Your task to perform on an android device: turn vacation reply on in the gmail app Image 0: 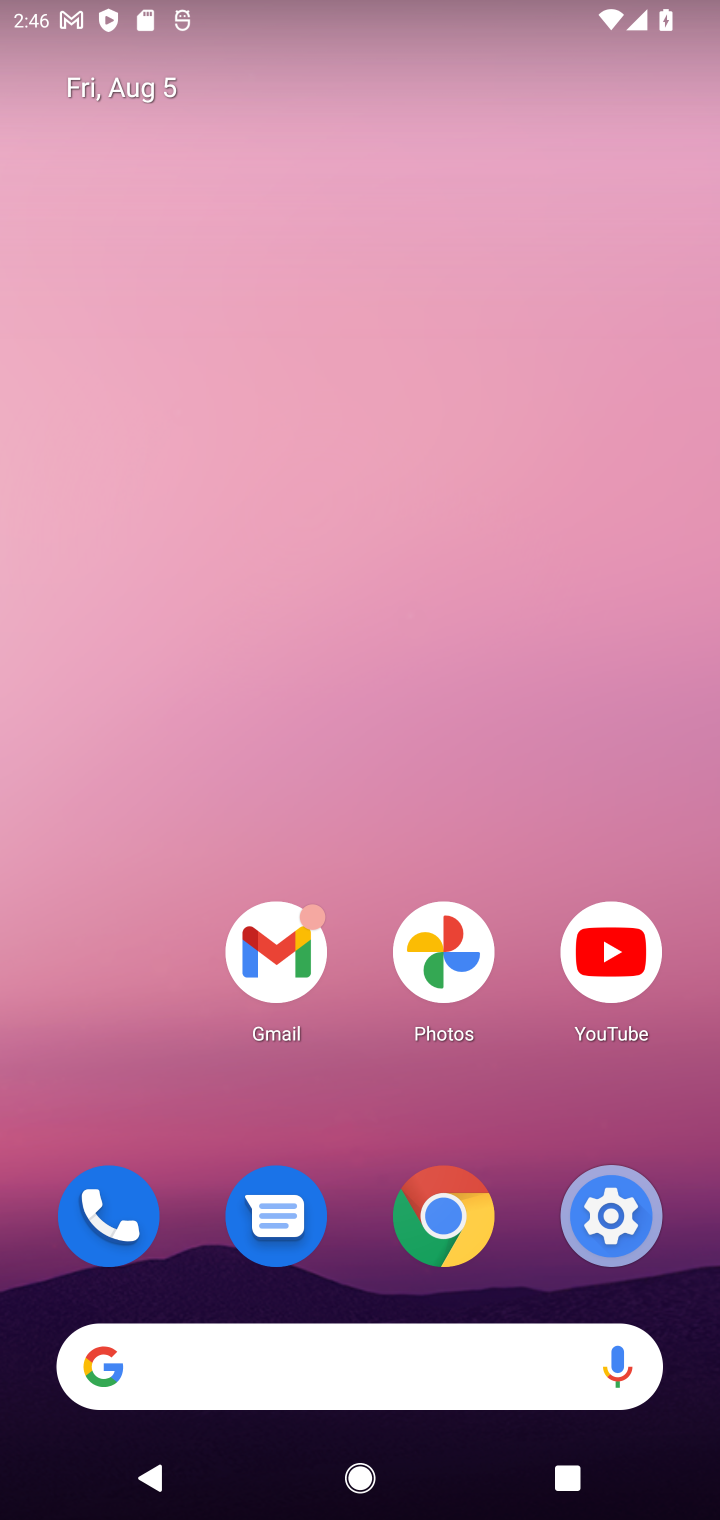
Step 0: click (329, 938)
Your task to perform on an android device: turn vacation reply on in the gmail app Image 1: 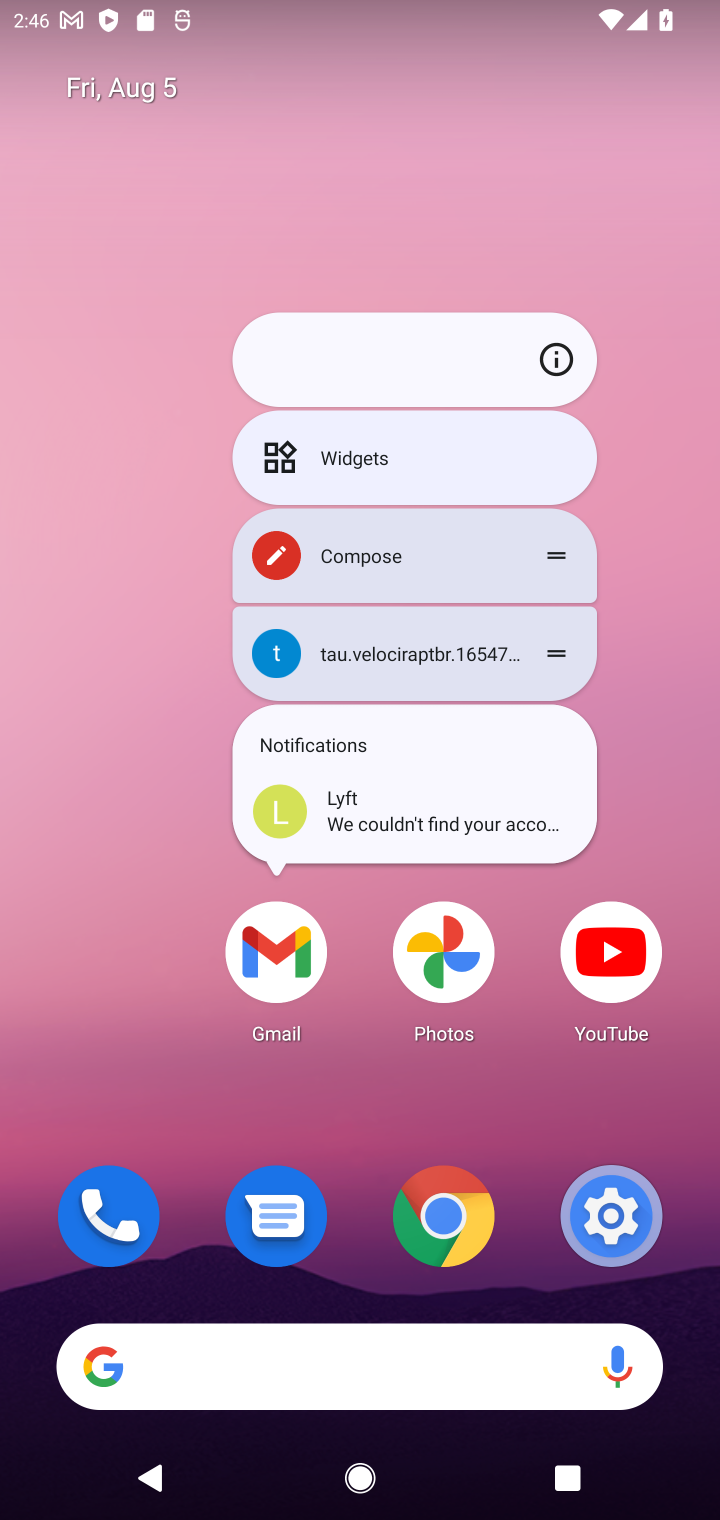
Step 1: click (316, 962)
Your task to perform on an android device: turn vacation reply on in the gmail app Image 2: 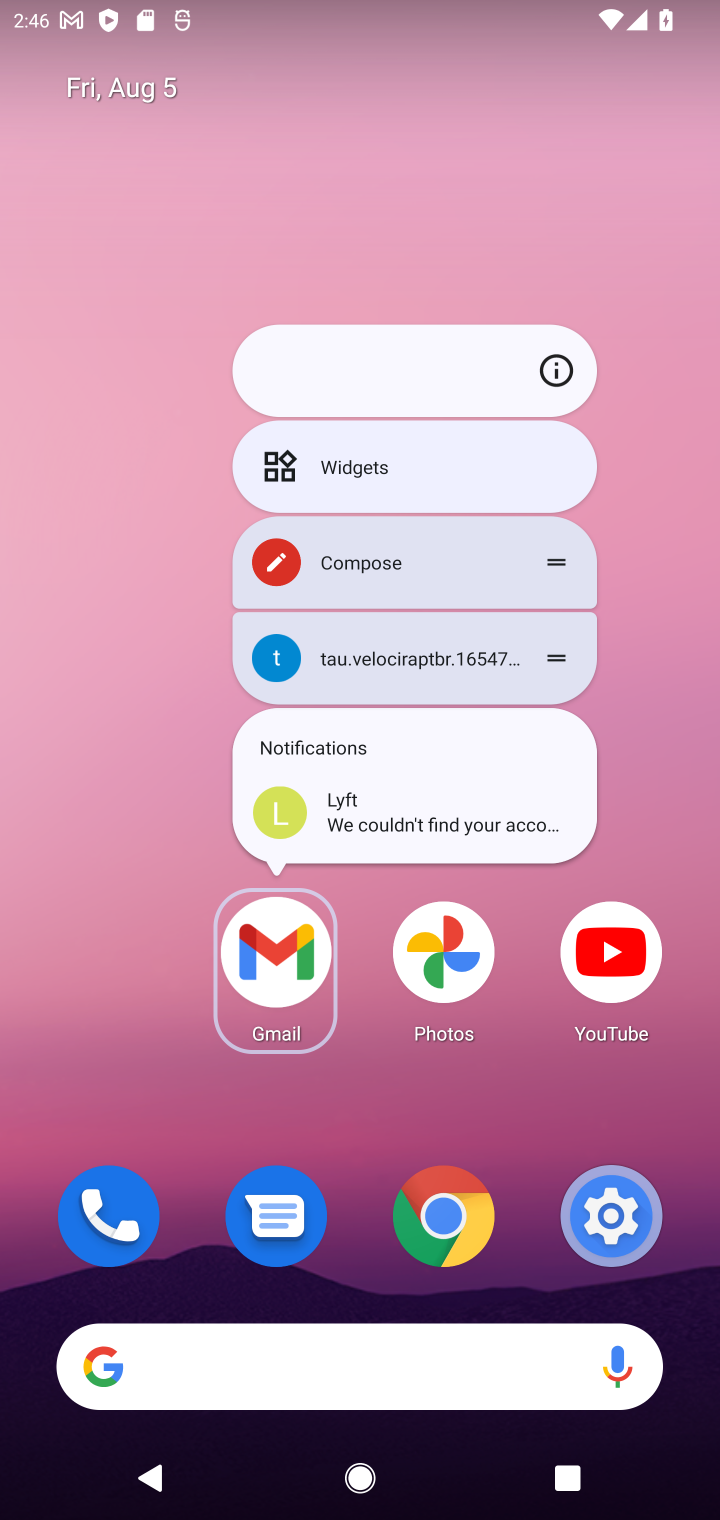
Step 2: click (316, 962)
Your task to perform on an android device: turn vacation reply on in the gmail app Image 3: 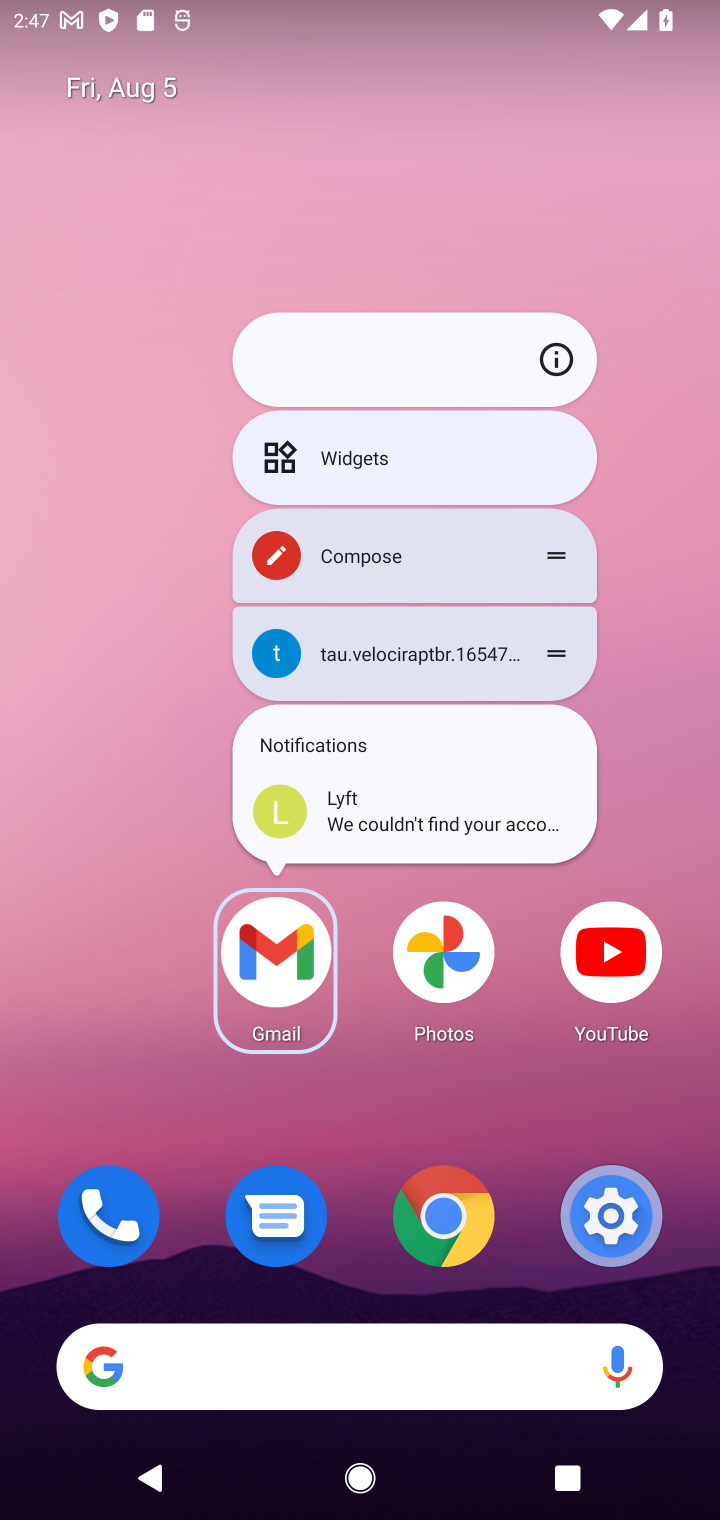
Step 3: click (316, 962)
Your task to perform on an android device: turn vacation reply on in the gmail app Image 4: 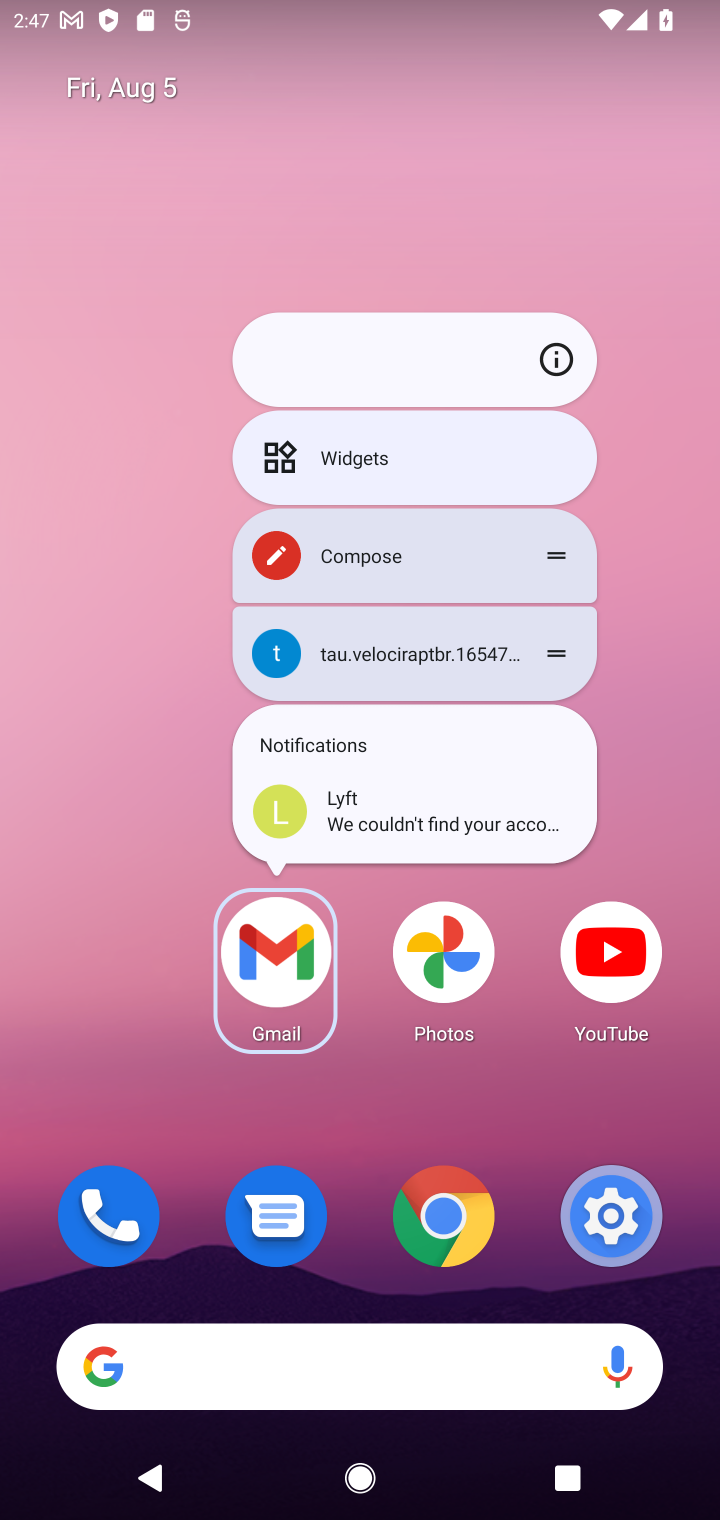
Step 4: click (242, 981)
Your task to perform on an android device: turn vacation reply on in the gmail app Image 5: 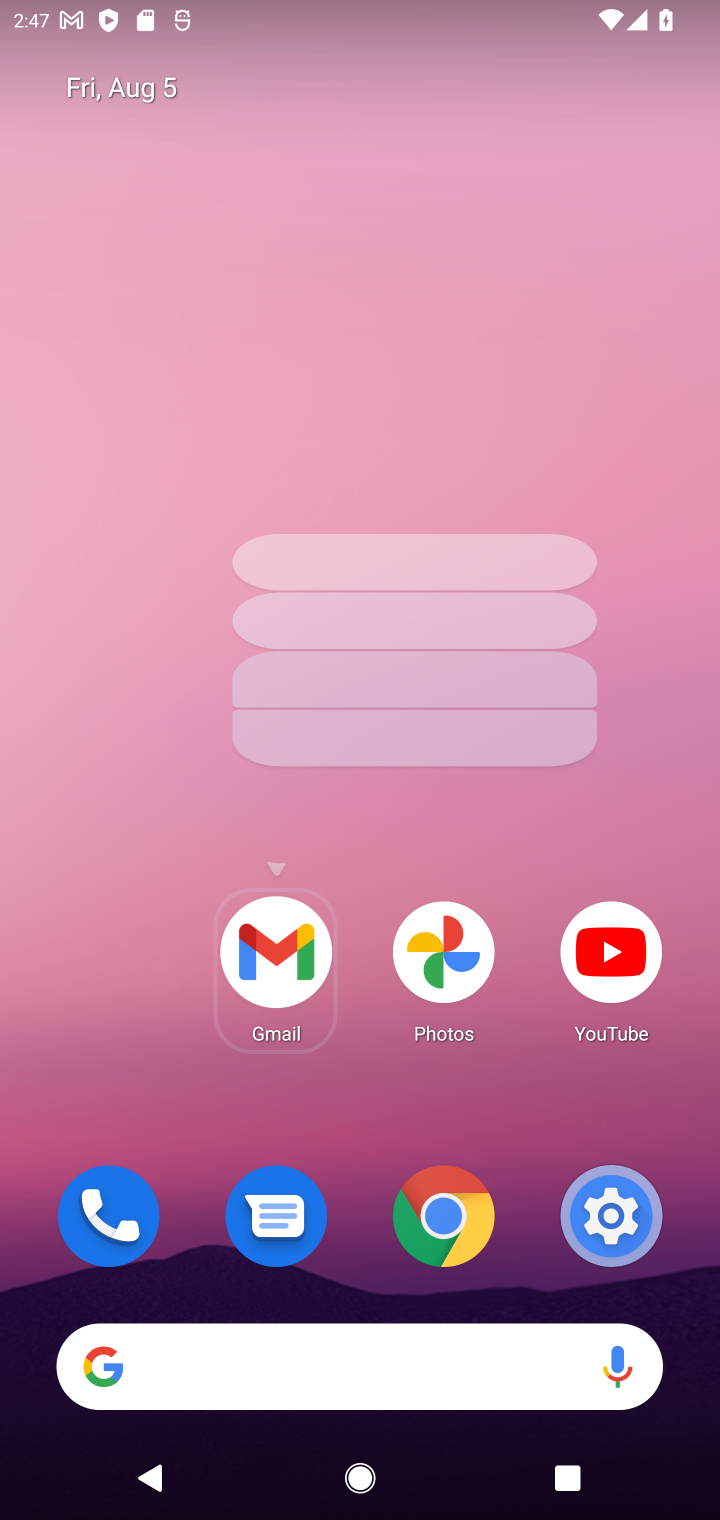
Step 5: click (242, 981)
Your task to perform on an android device: turn vacation reply on in the gmail app Image 6: 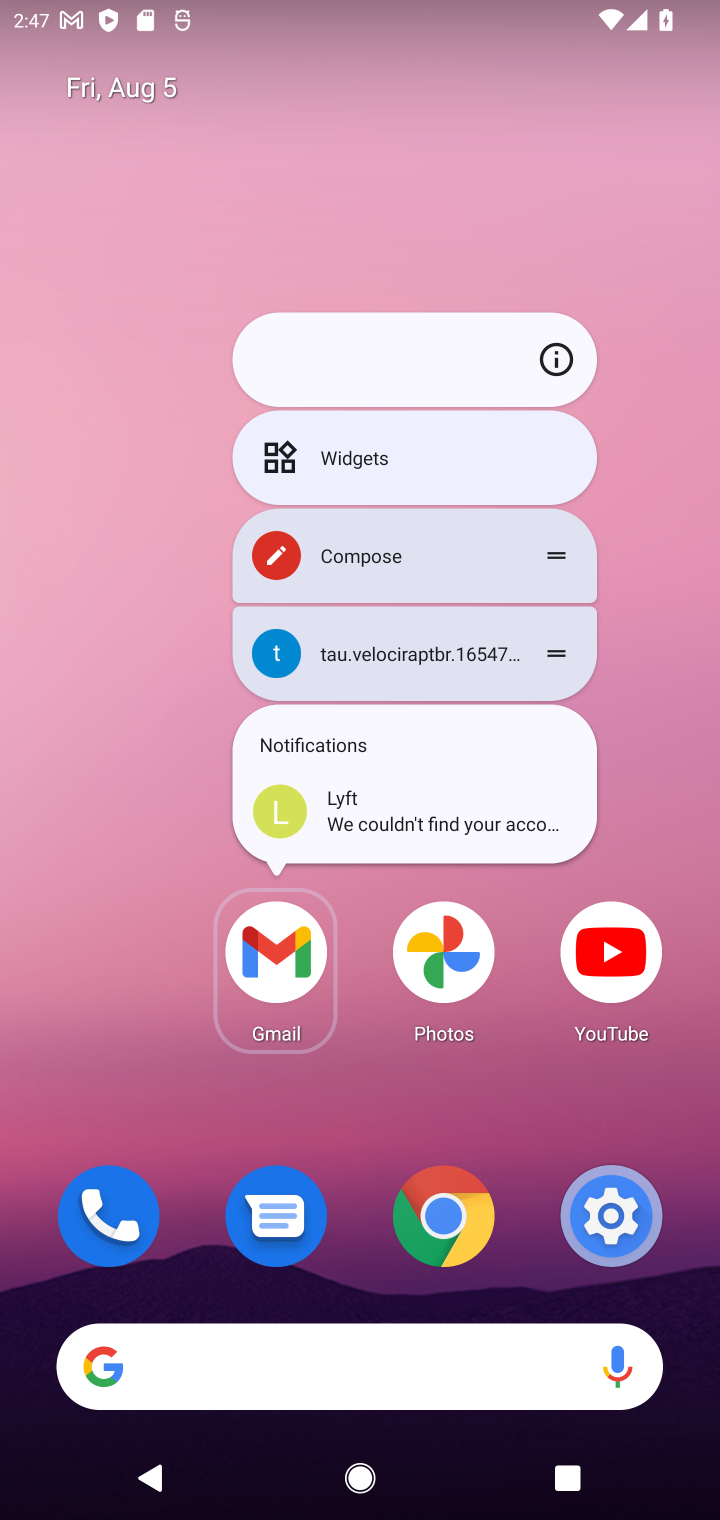
Step 6: click (89, 954)
Your task to perform on an android device: turn vacation reply on in the gmail app Image 7: 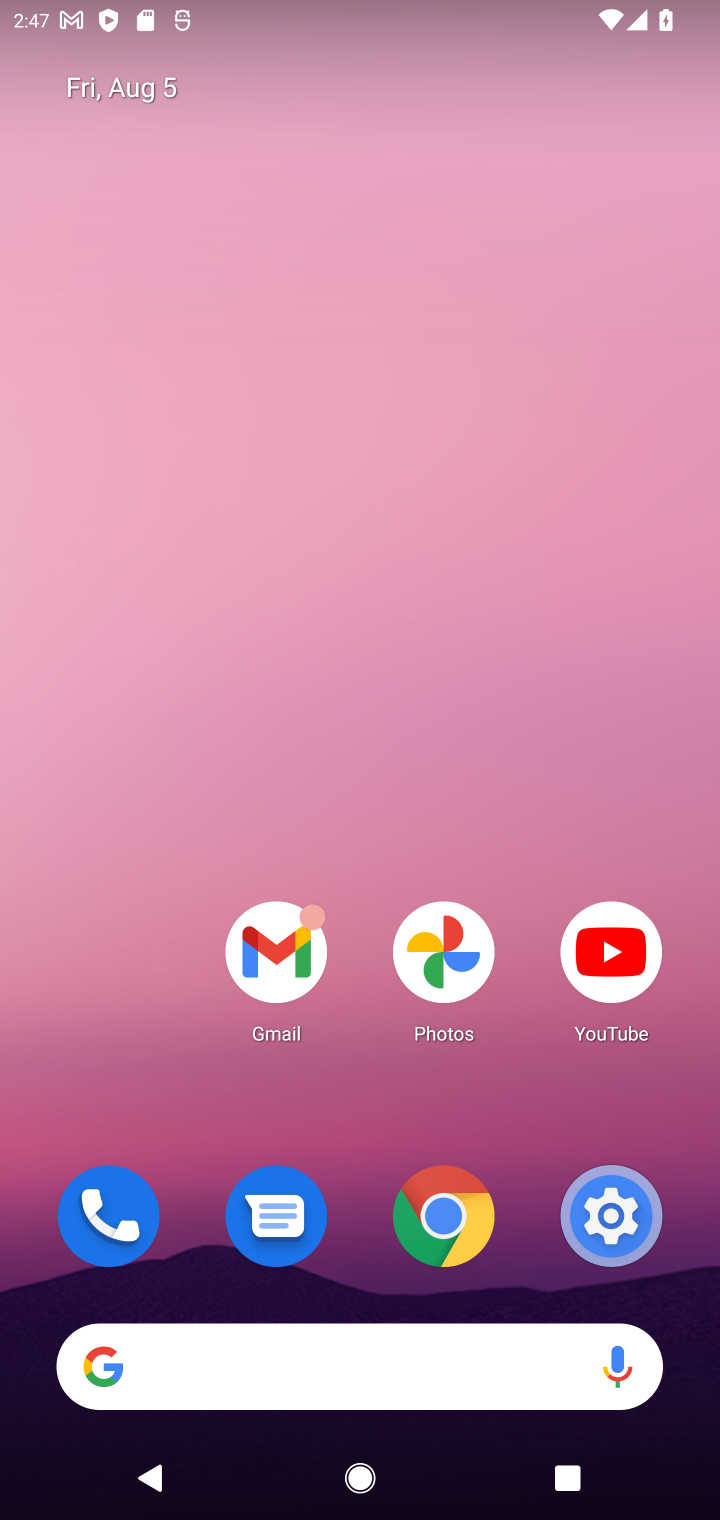
Step 7: click (302, 951)
Your task to perform on an android device: turn vacation reply on in the gmail app Image 8: 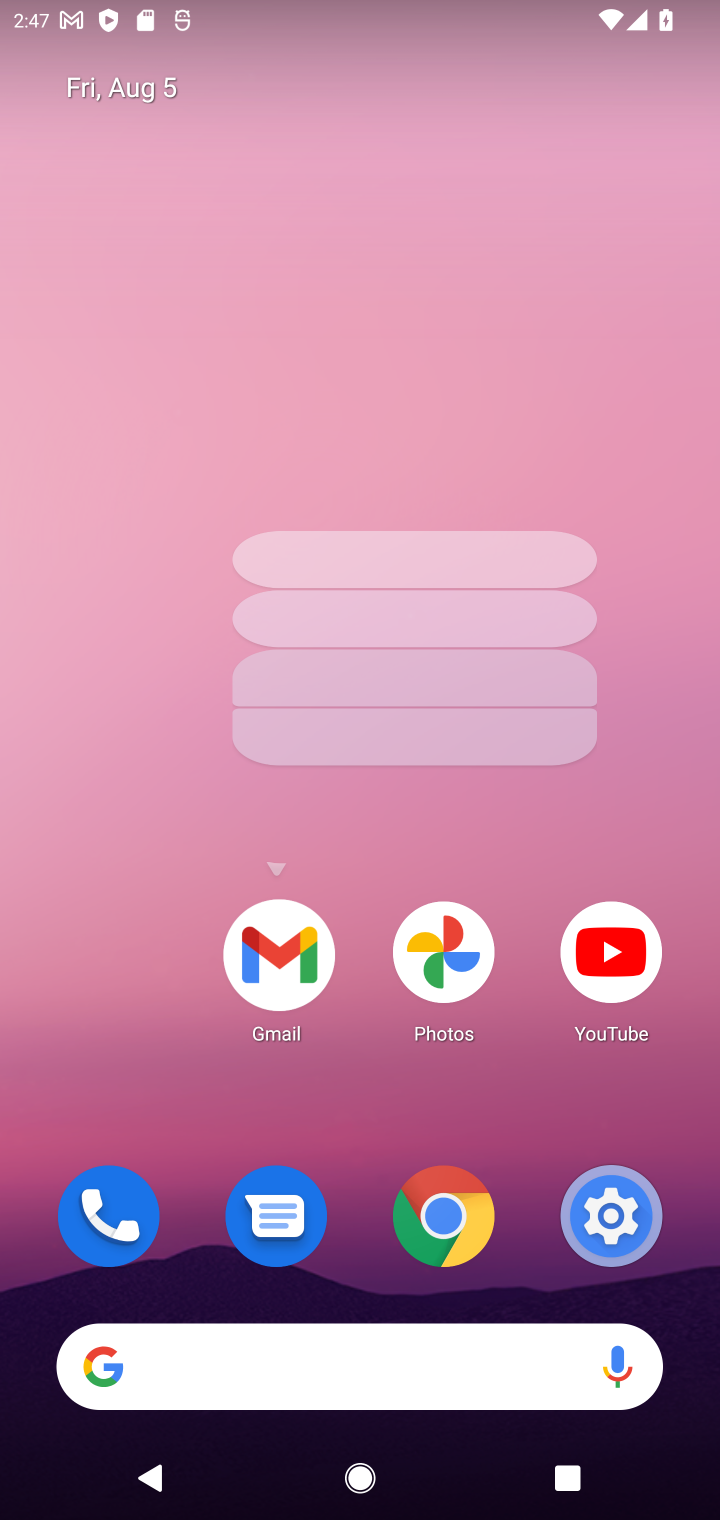
Step 8: click (302, 951)
Your task to perform on an android device: turn vacation reply on in the gmail app Image 9: 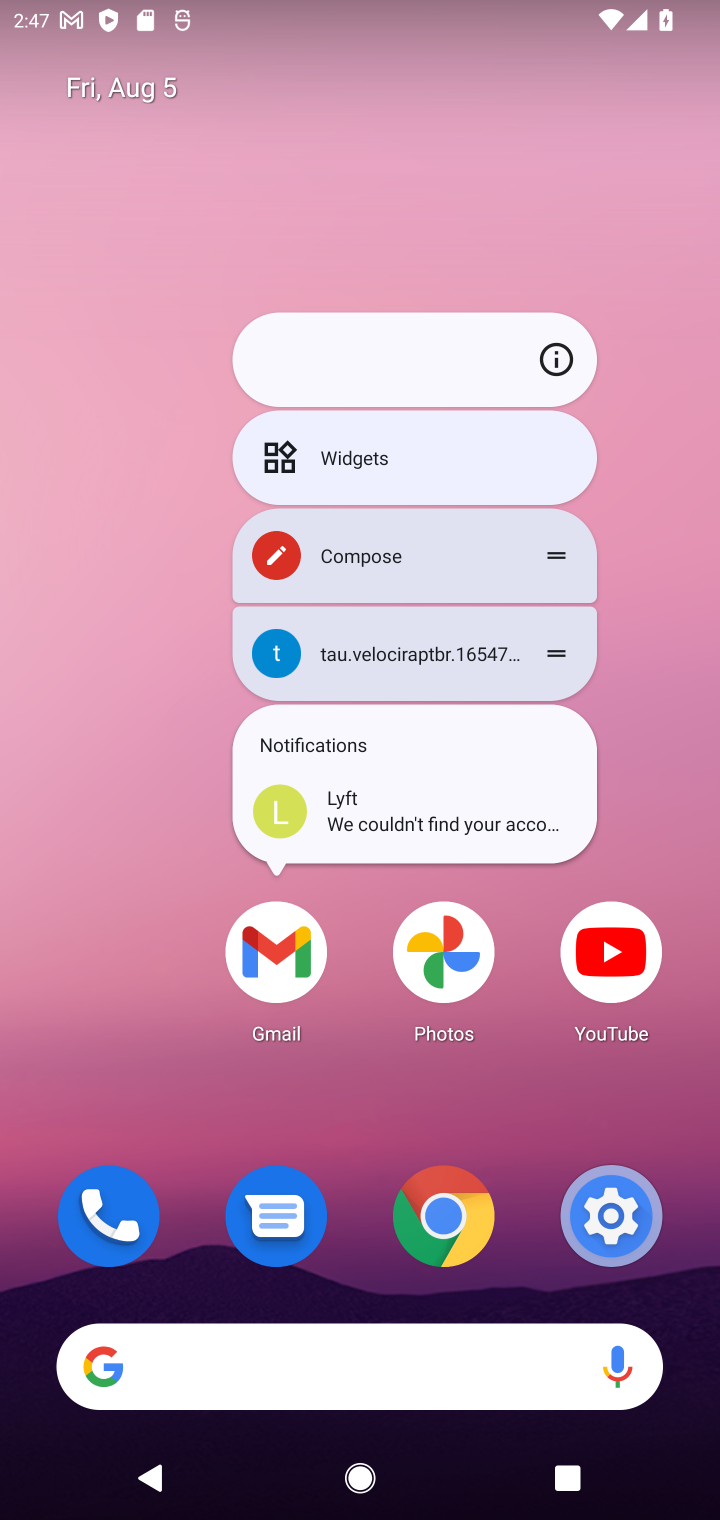
Step 9: click (302, 951)
Your task to perform on an android device: turn vacation reply on in the gmail app Image 10: 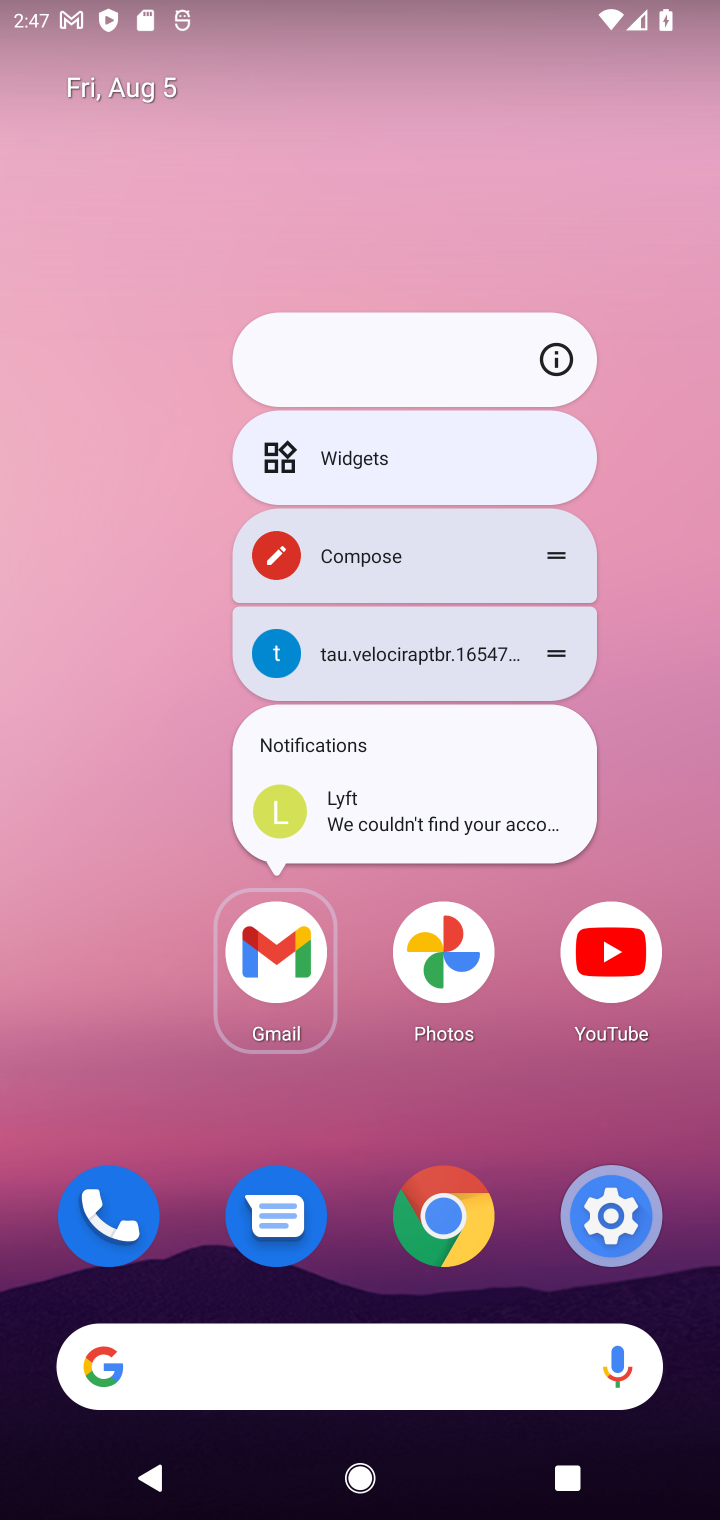
Step 10: click (302, 951)
Your task to perform on an android device: turn vacation reply on in the gmail app Image 11: 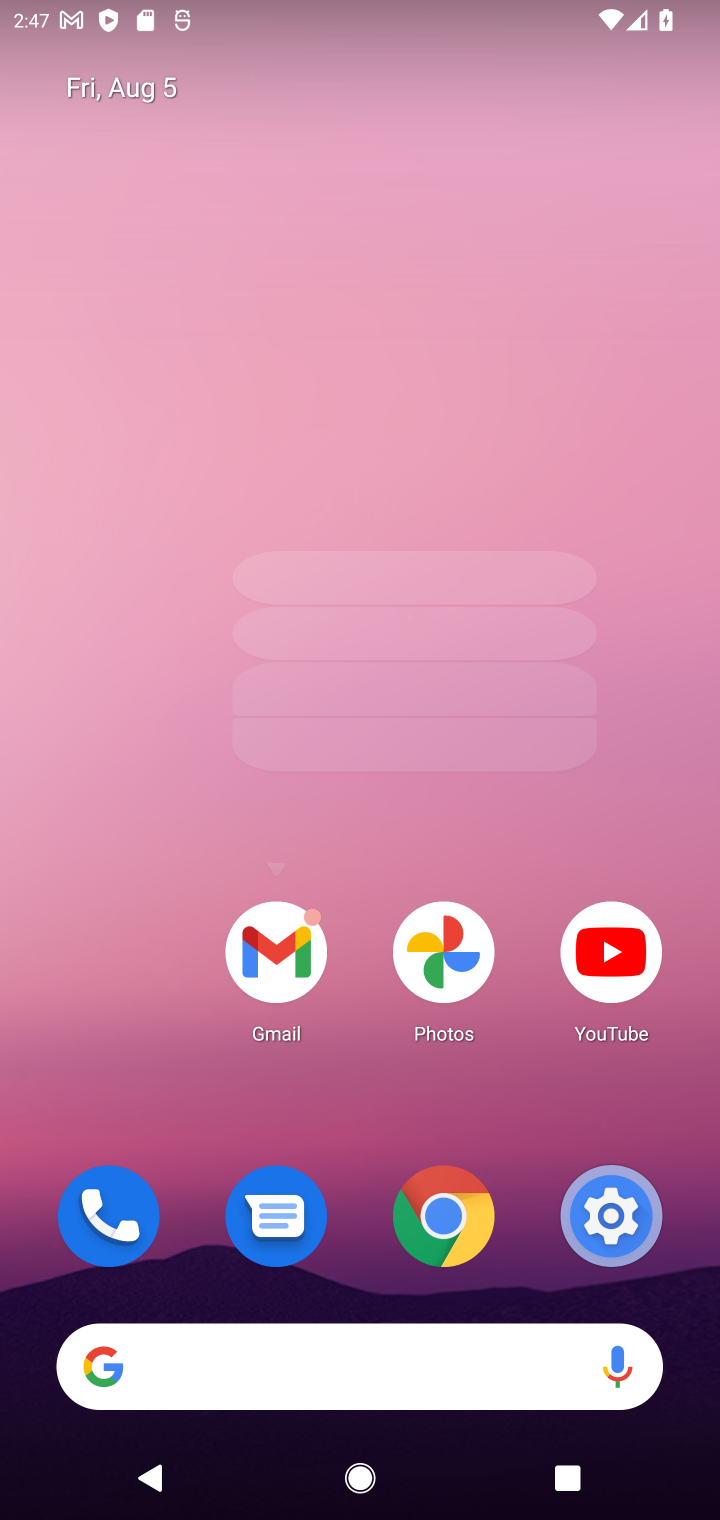
Step 11: click (309, 980)
Your task to perform on an android device: turn vacation reply on in the gmail app Image 12: 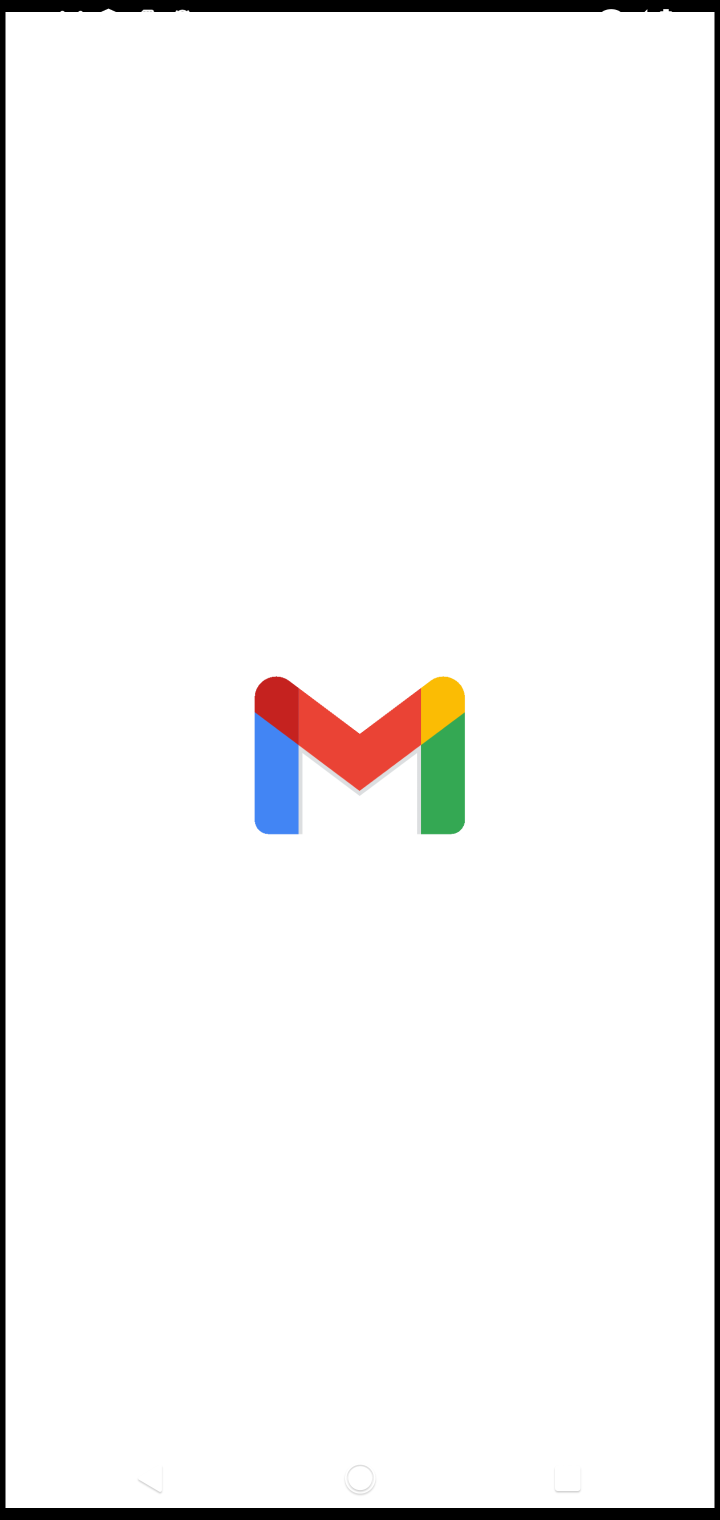
Step 12: click (309, 980)
Your task to perform on an android device: turn vacation reply on in the gmail app Image 13: 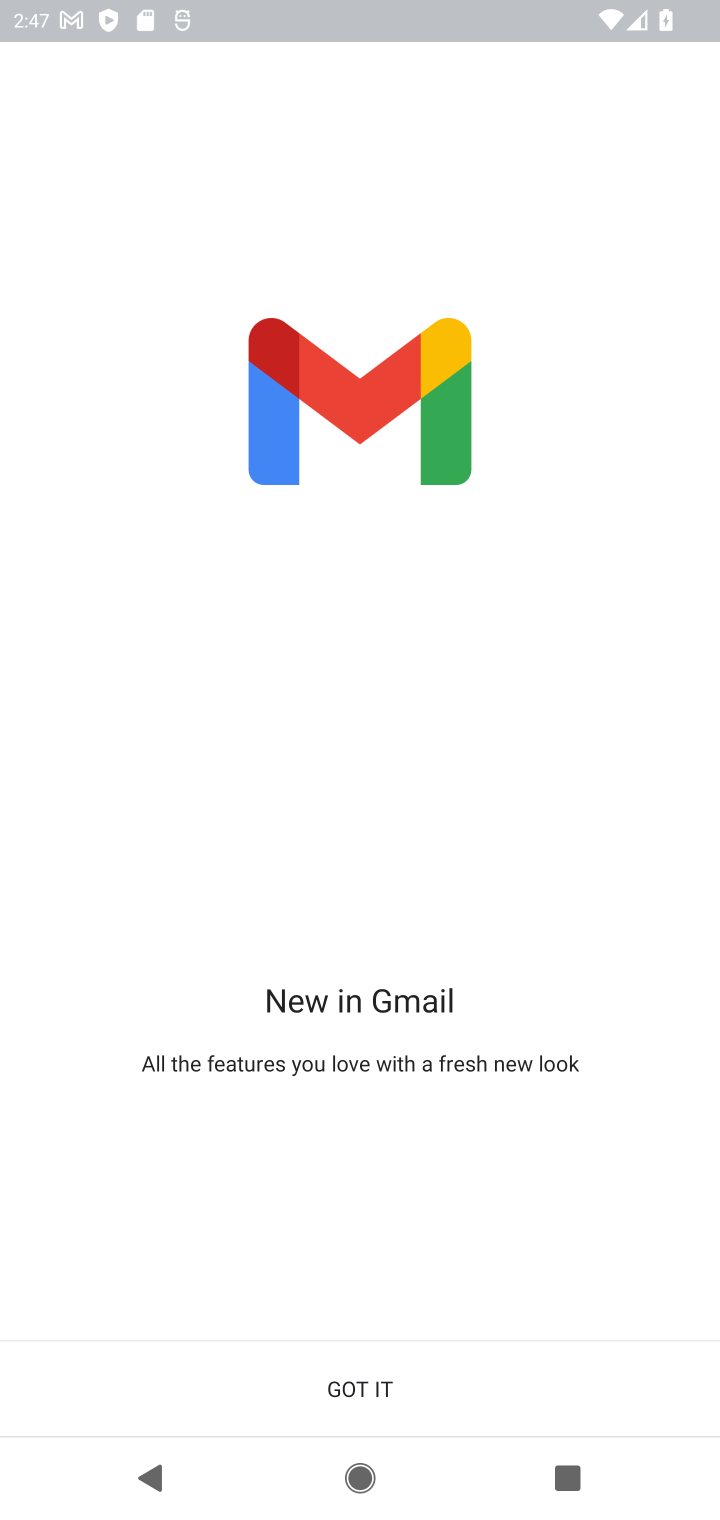
Step 13: click (421, 1406)
Your task to perform on an android device: turn vacation reply on in the gmail app Image 14: 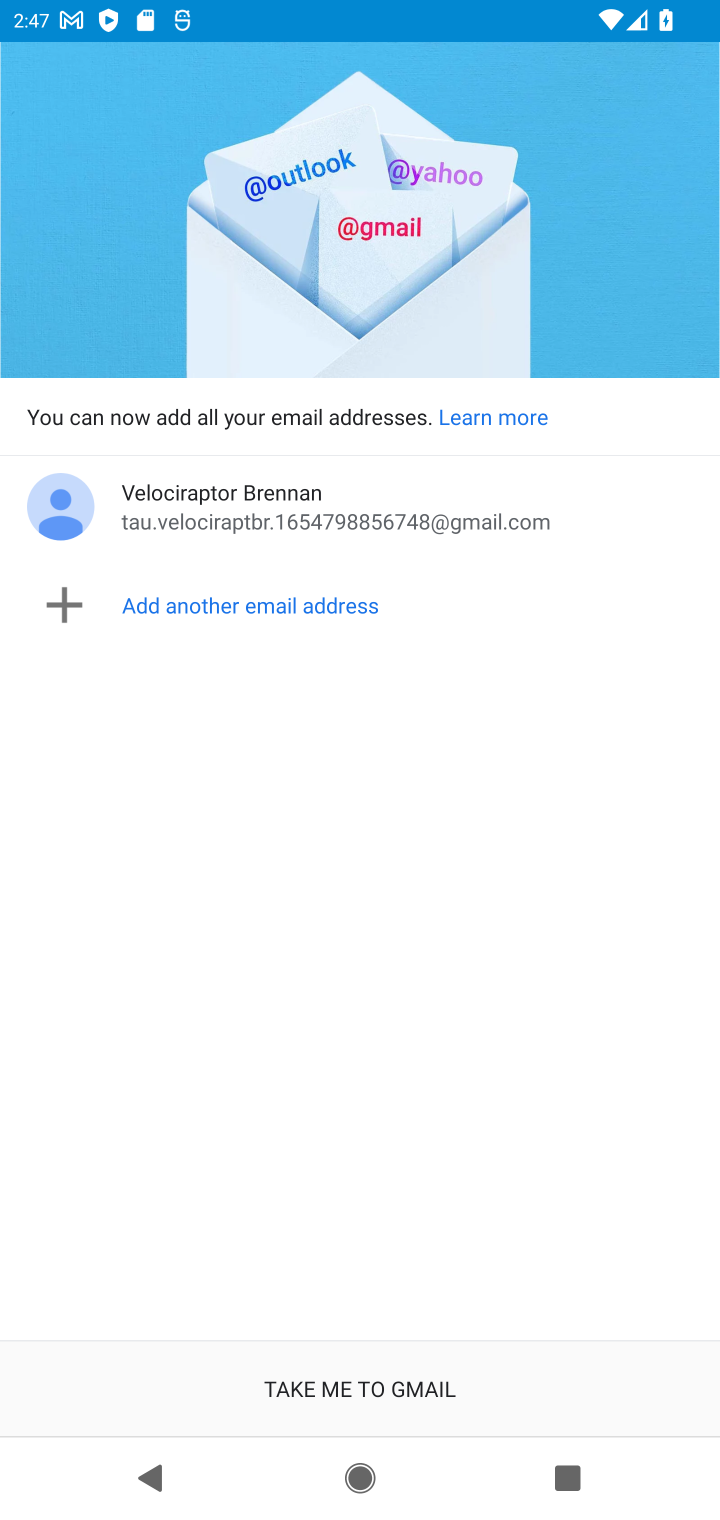
Step 14: click (421, 1397)
Your task to perform on an android device: turn vacation reply on in the gmail app Image 15: 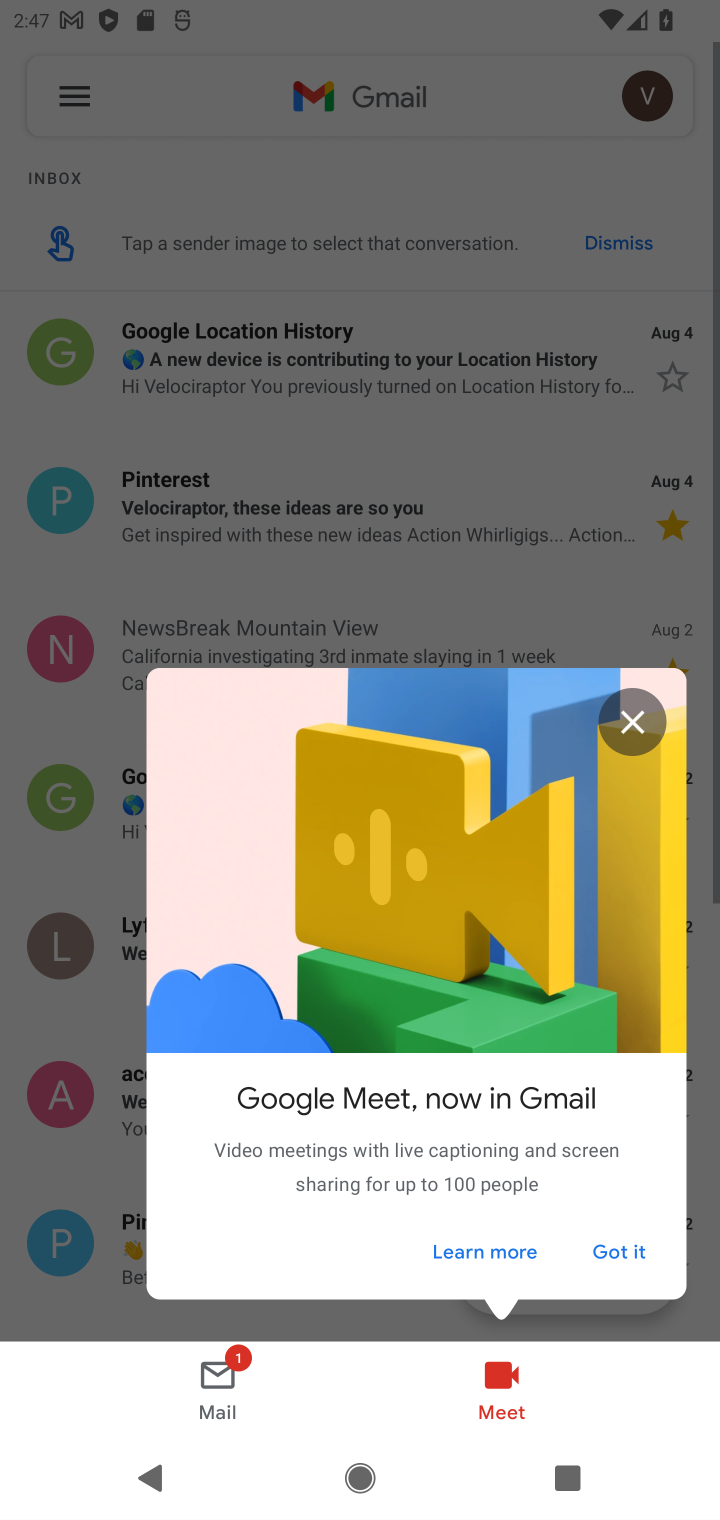
Step 15: click (63, 102)
Your task to perform on an android device: turn vacation reply on in the gmail app Image 16: 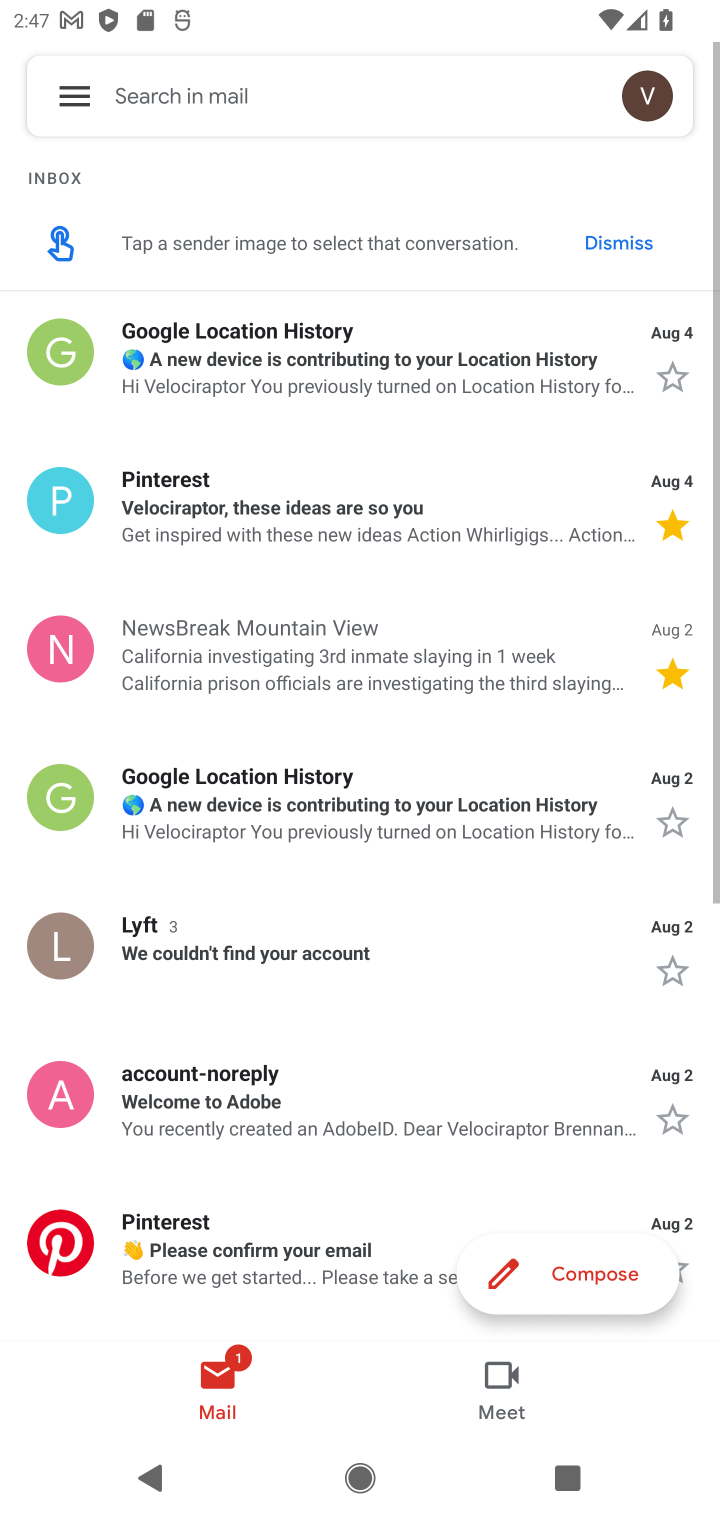
Step 16: click (87, 87)
Your task to perform on an android device: turn vacation reply on in the gmail app Image 17: 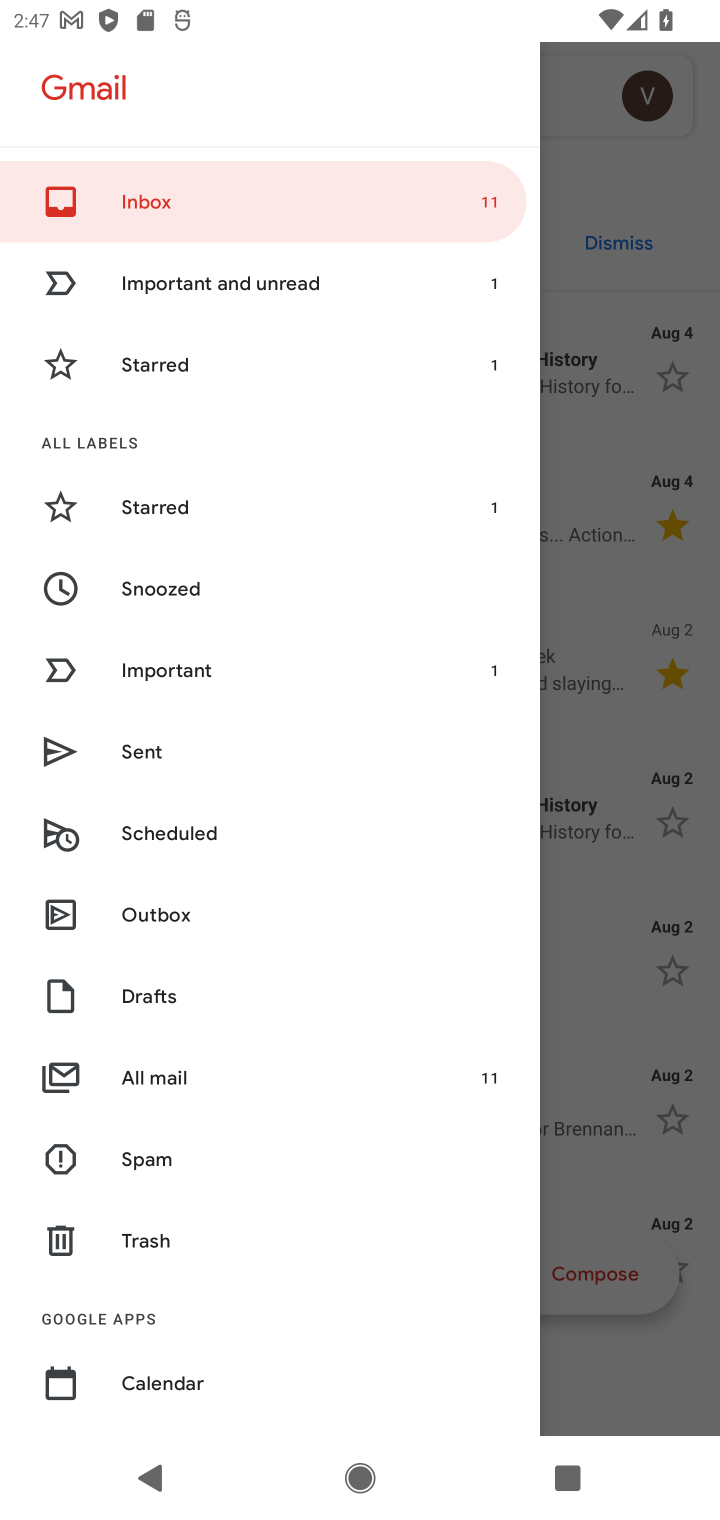
Step 17: drag from (161, 1273) to (363, 288)
Your task to perform on an android device: turn vacation reply on in the gmail app Image 18: 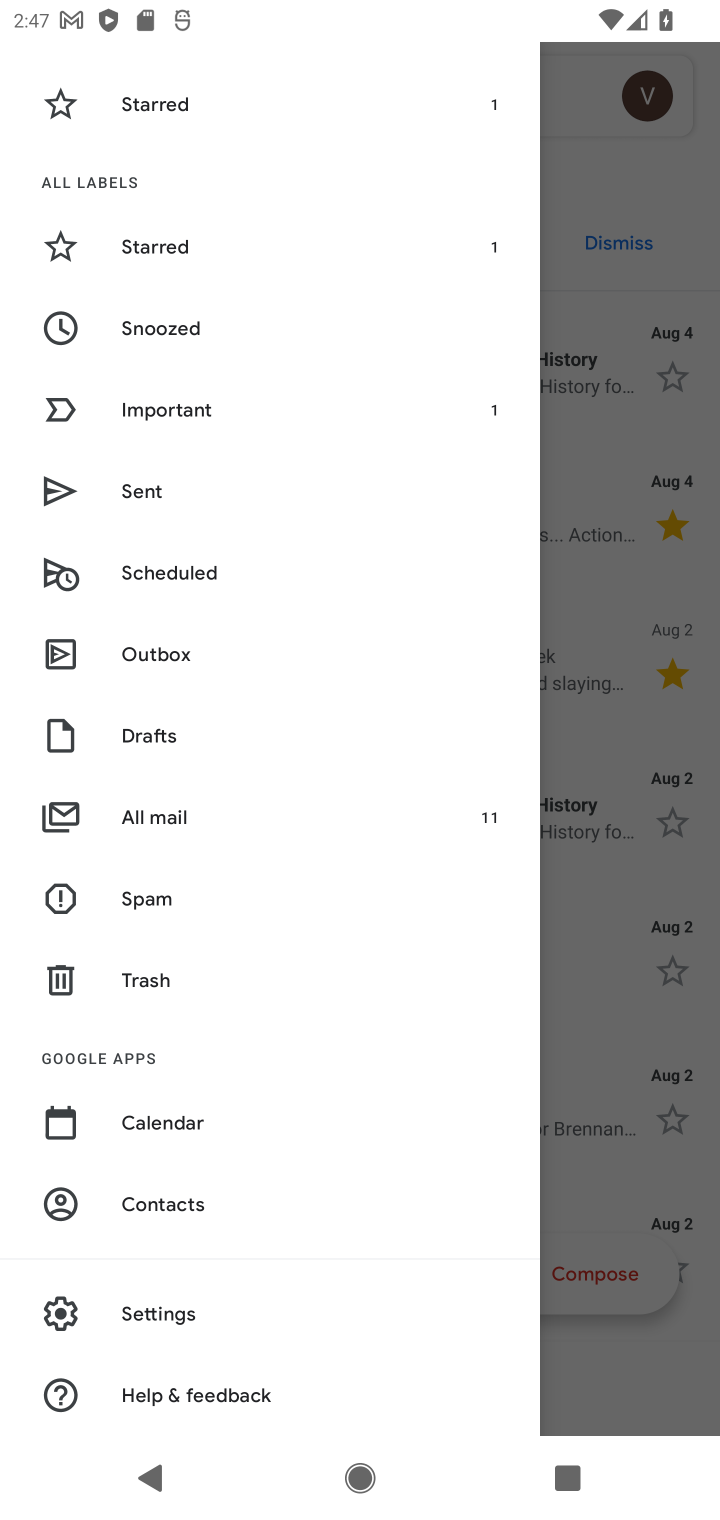
Step 18: click (175, 1319)
Your task to perform on an android device: turn vacation reply on in the gmail app Image 19: 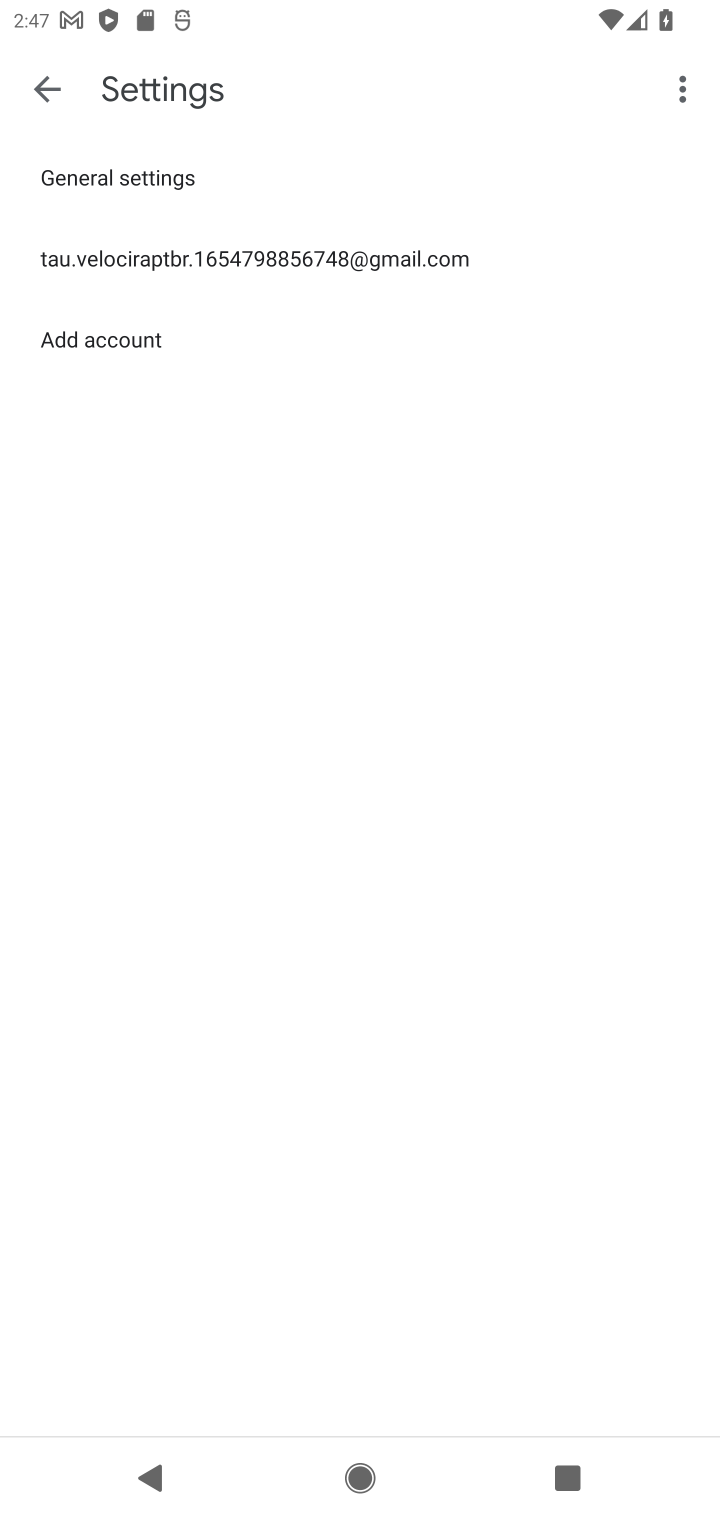
Step 19: click (352, 261)
Your task to perform on an android device: turn vacation reply on in the gmail app Image 20: 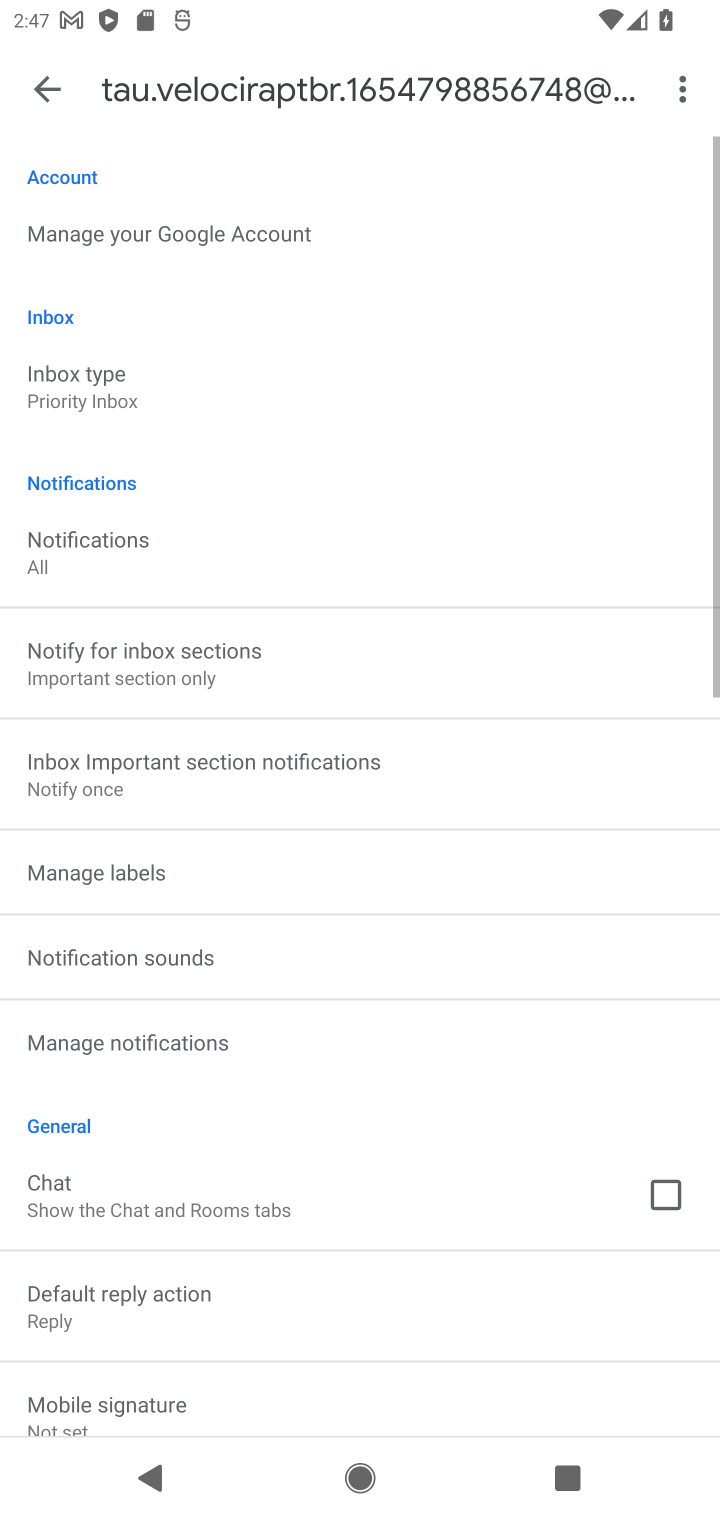
Step 20: drag from (347, 1190) to (461, 115)
Your task to perform on an android device: turn vacation reply on in the gmail app Image 21: 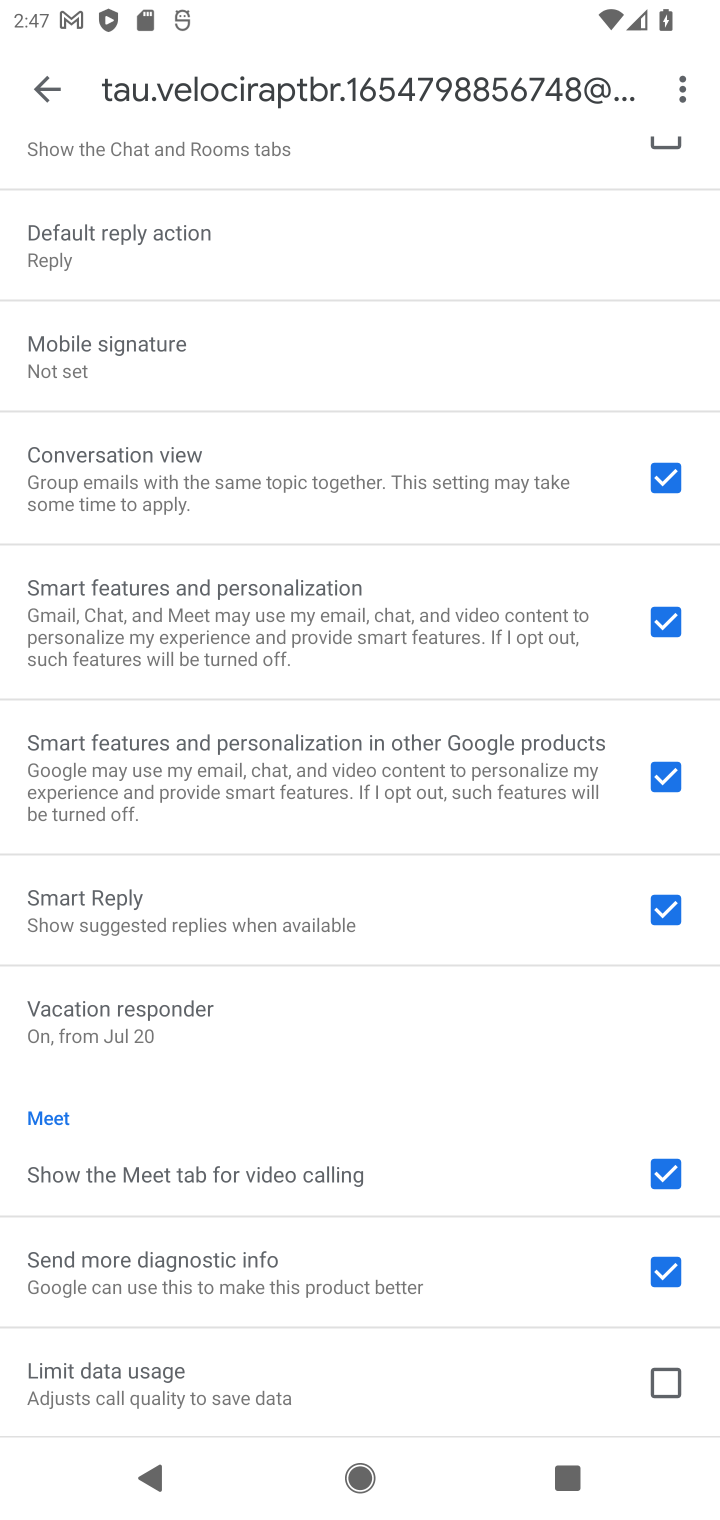
Step 21: click (363, 1022)
Your task to perform on an android device: turn vacation reply on in the gmail app Image 22: 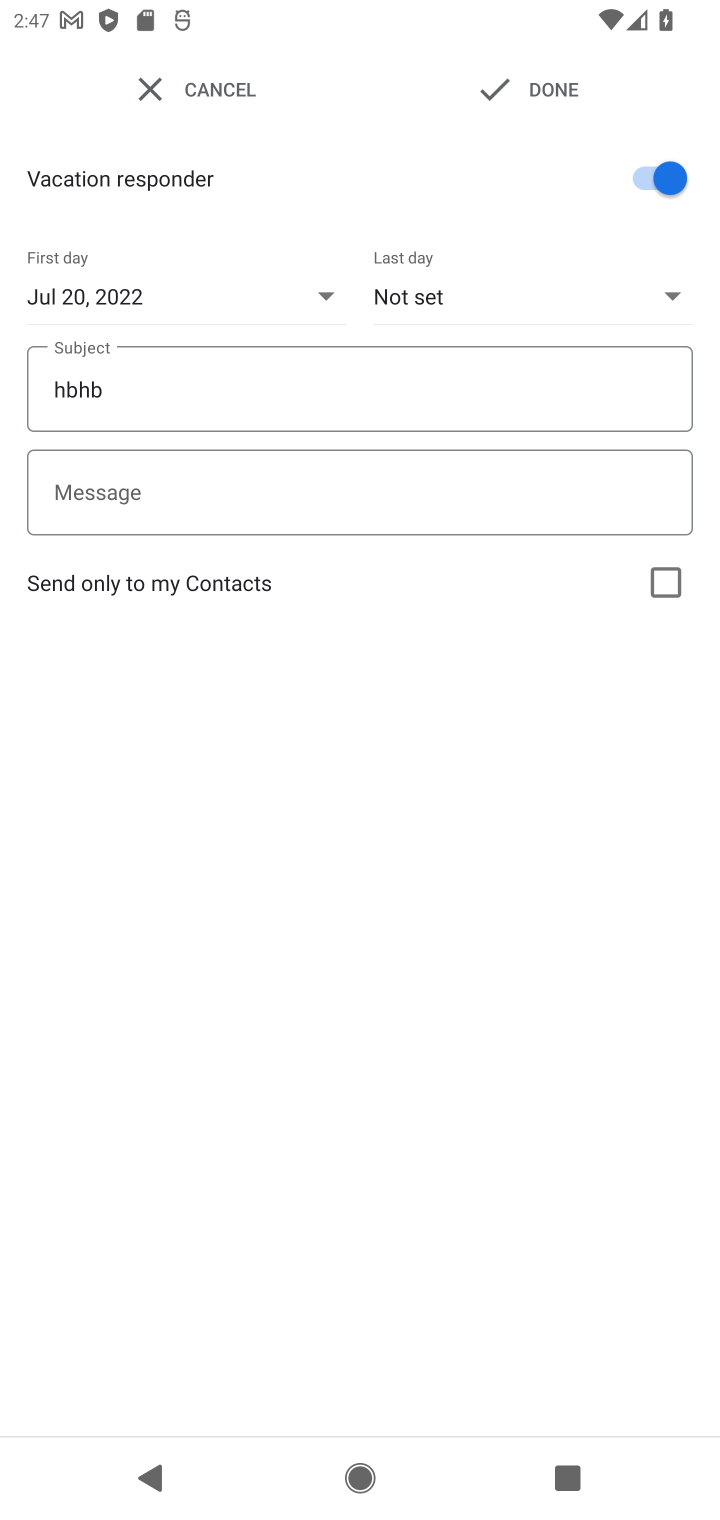
Step 22: click (567, 79)
Your task to perform on an android device: turn vacation reply on in the gmail app Image 23: 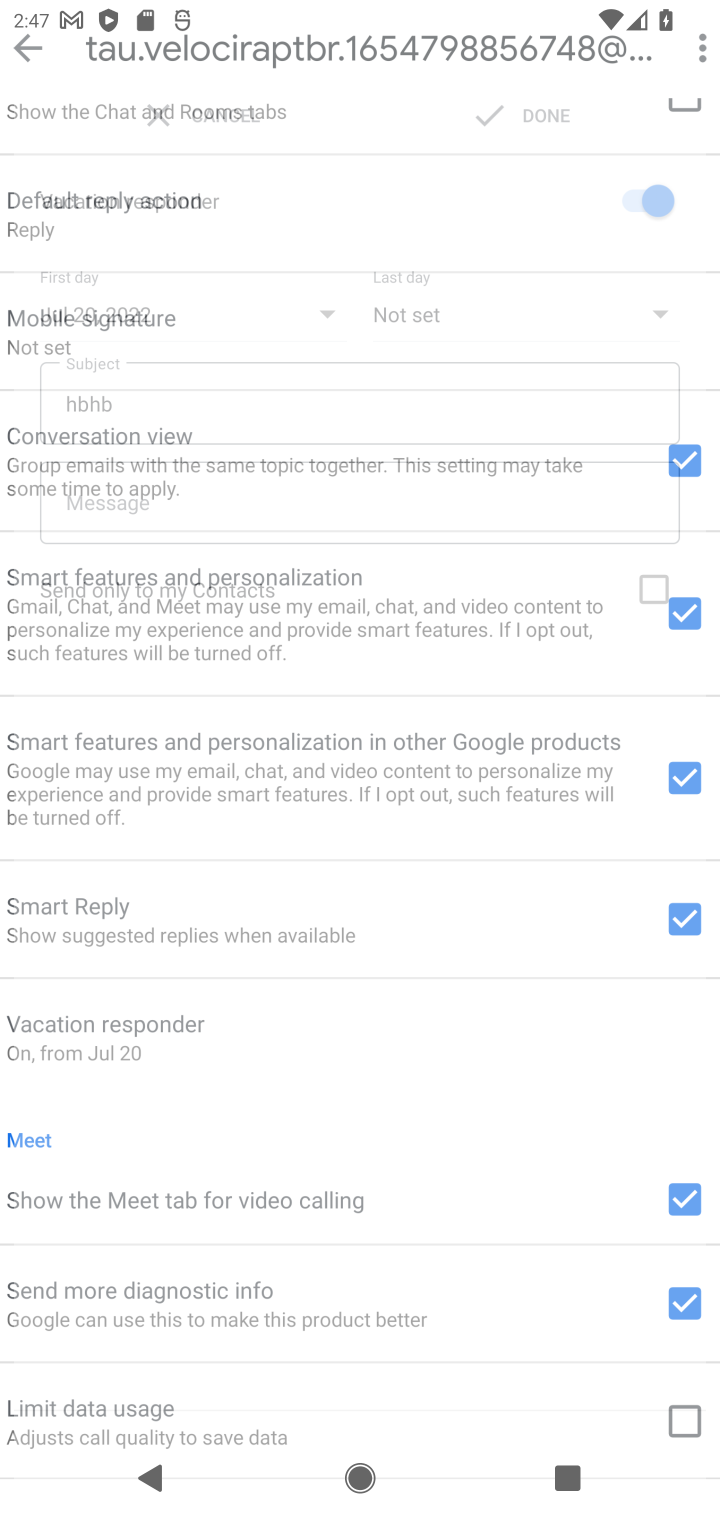
Step 23: task complete